Your task to perform on an android device: Go to settings Image 0: 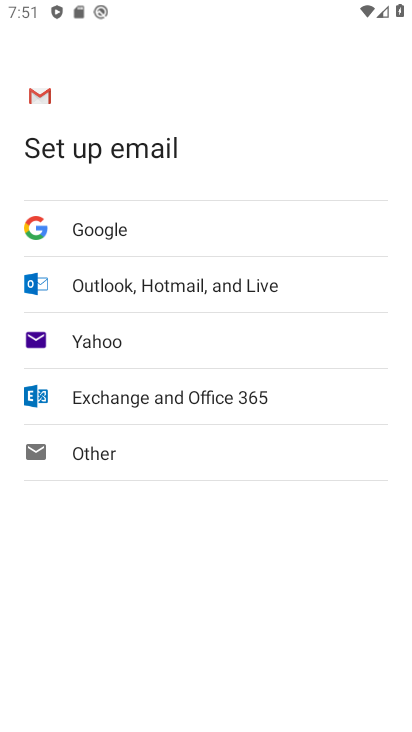
Step 0: press home button
Your task to perform on an android device: Go to settings Image 1: 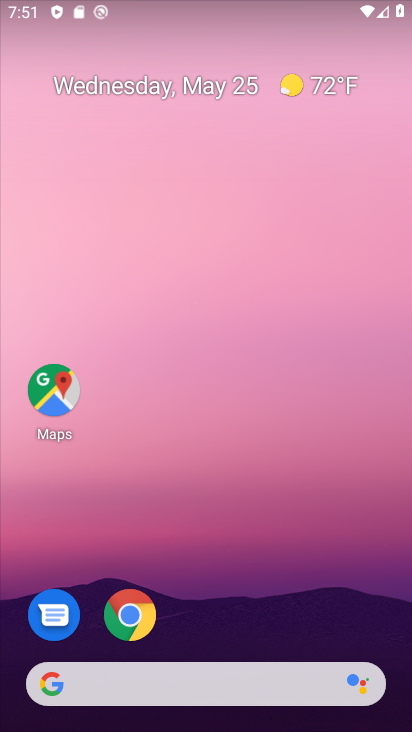
Step 1: press home button
Your task to perform on an android device: Go to settings Image 2: 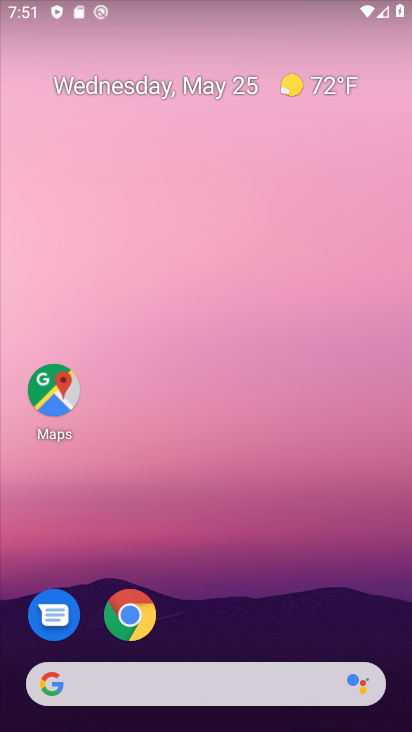
Step 2: drag from (229, 597) to (227, 59)
Your task to perform on an android device: Go to settings Image 3: 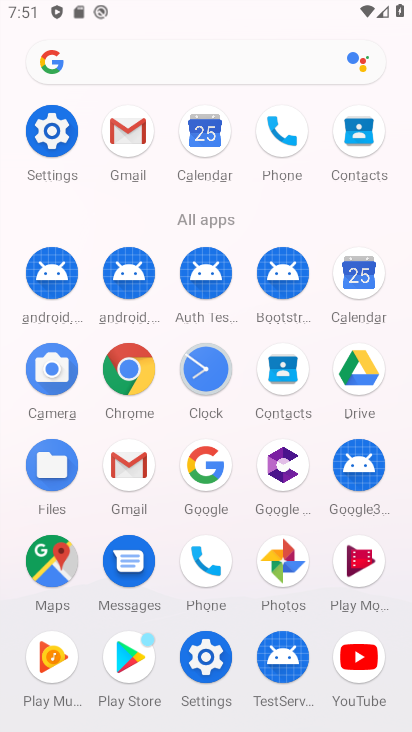
Step 3: click (61, 138)
Your task to perform on an android device: Go to settings Image 4: 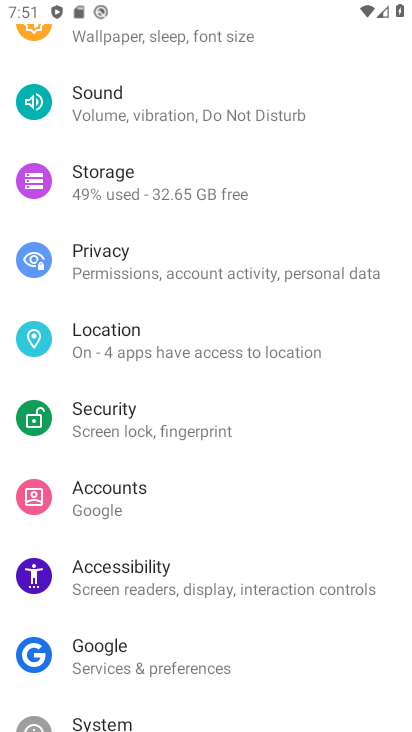
Step 4: task complete